Your task to perform on an android device: toggle priority inbox in the gmail app Image 0: 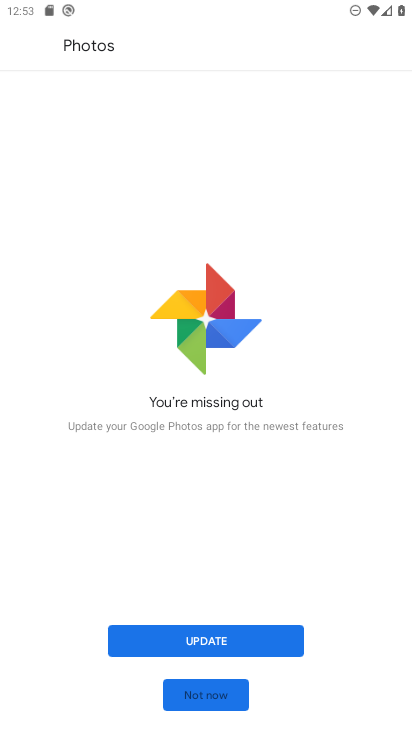
Step 0: press home button
Your task to perform on an android device: toggle priority inbox in the gmail app Image 1: 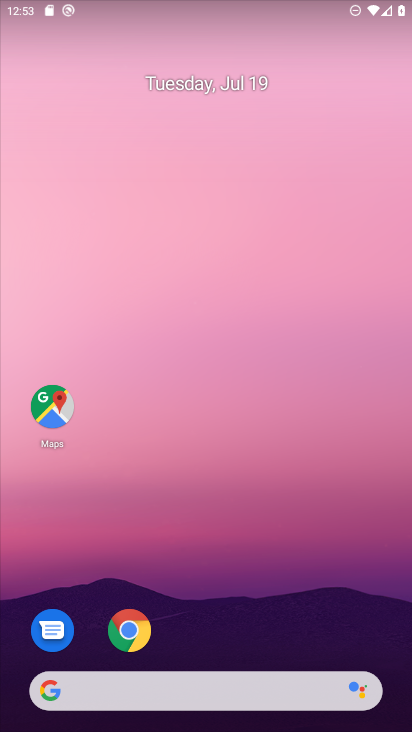
Step 1: drag from (184, 694) to (295, 129)
Your task to perform on an android device: toggle priority inbox in the gmail app Image 2: 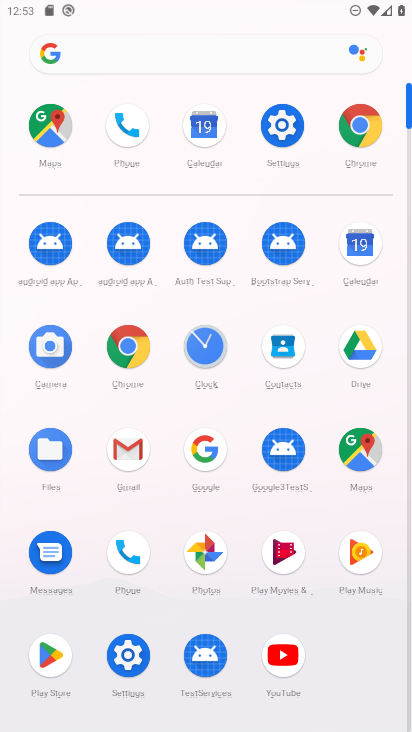
Step 2: click (129, 457)
Your task to perform on an android device: toggle priority inbox in the gmail app Image 3: 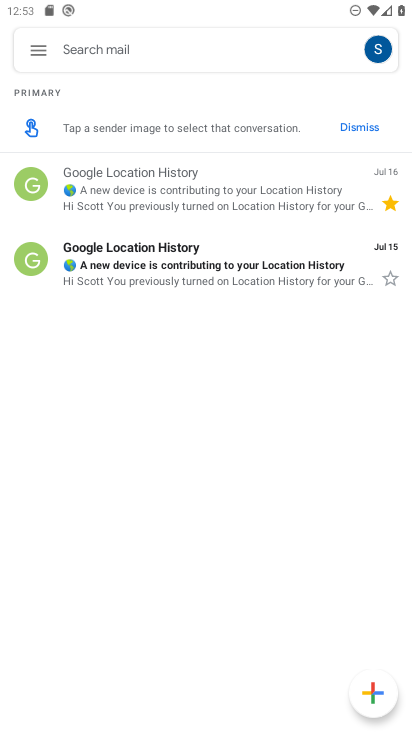
Step 3: click (40, 50)
Your task to perform on an android device: toggle priority inbox in the gmail app Image 4: 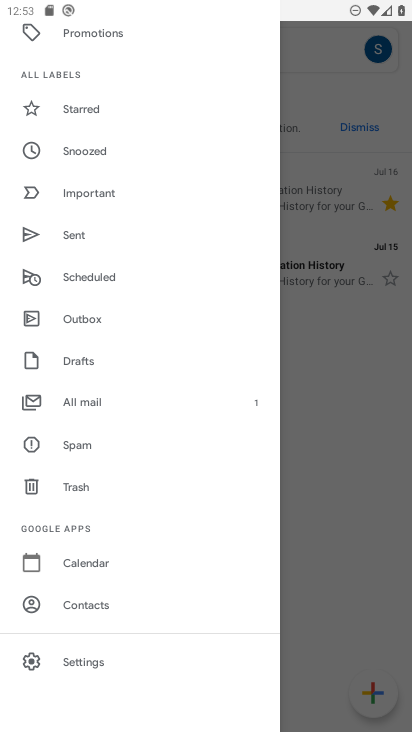
Step 4: click (89, 665)
Your task to perform on an android device: toggle priority inbox in the gmail app Image 5: 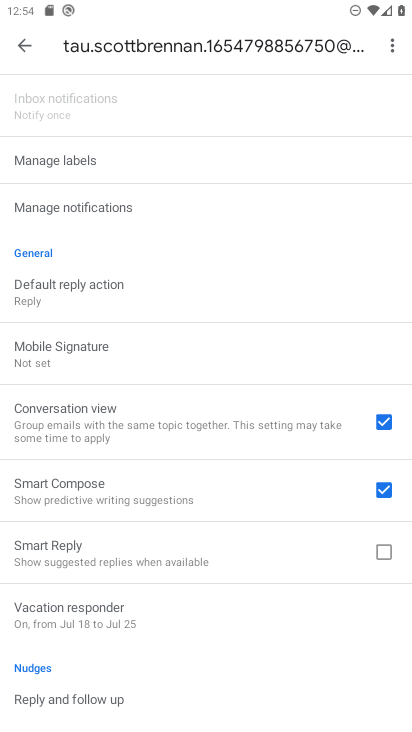
Step 5: drag from (272, 118) to (225, 609)
Your task to perform on an android device: toggle priority inbox in the gmail app Image 6: 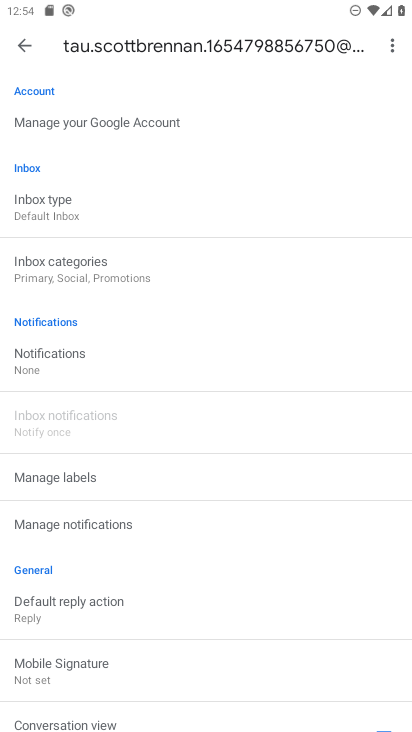
Step 6: click (48, 208)
Your task to perform on an android device: toggle priority inbox in the gmail app Image 7: 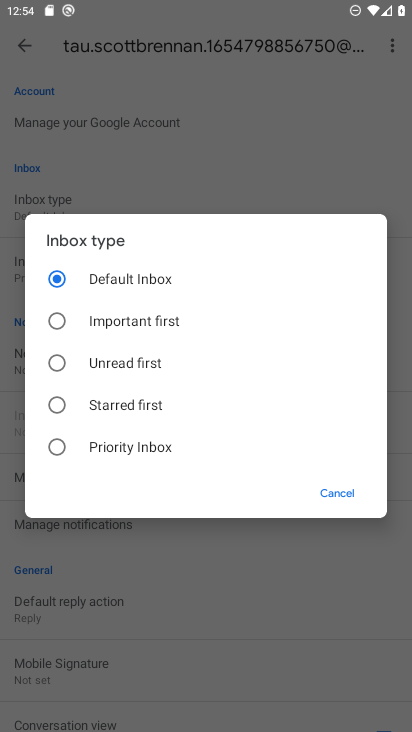
Step 7: click (59, 448)
Your task to perform on an android device: toggle priority inbox in the gmail app Image 8: 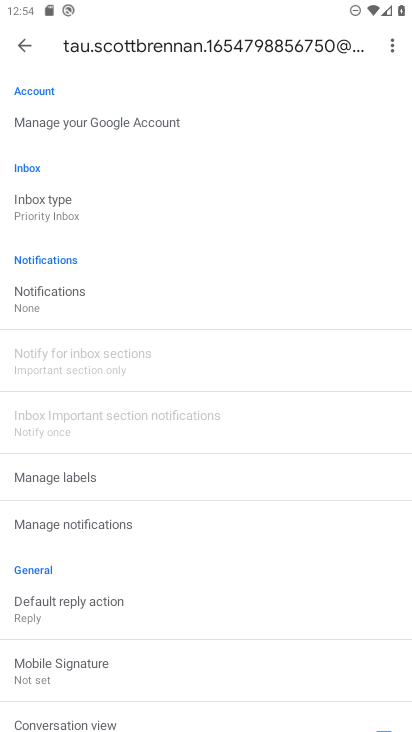
Step 8: task complete